Your task to perform on an android device: change the clock display to show seconds Image 0: 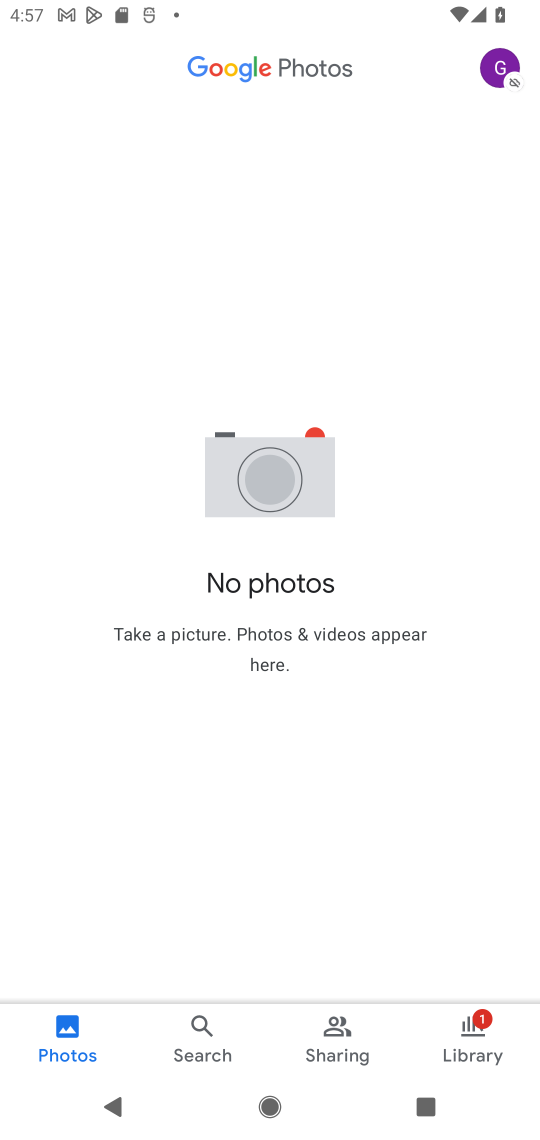
Step 0: press home button
Your task to perform on an android device: change the clock display to show seconds Image 1: 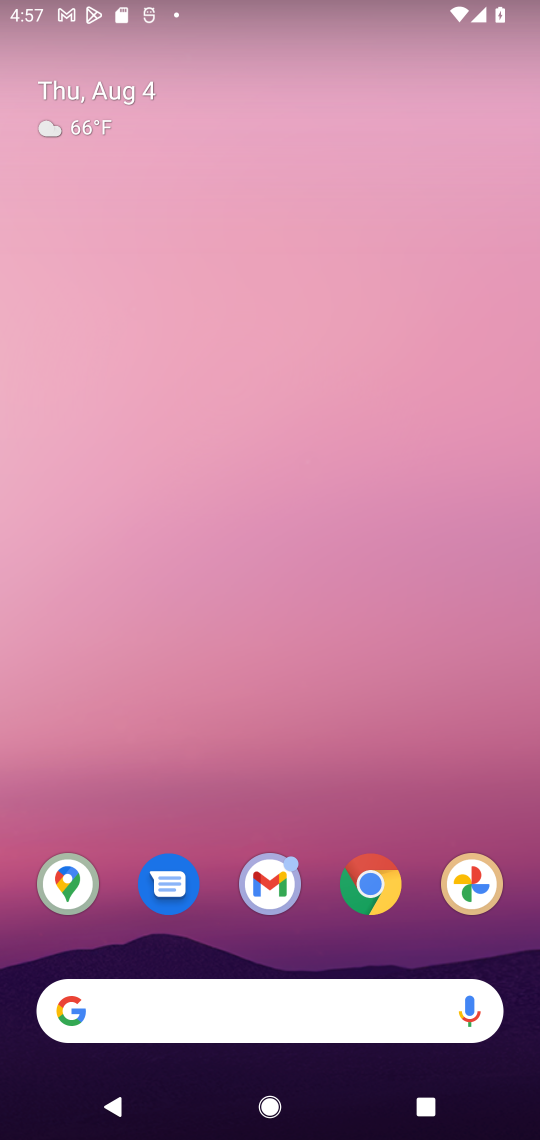
Step 1: drag from (211, 925) to (234, 260)
Your task to perform on an android device: change the clock display to show seconds Image 2: 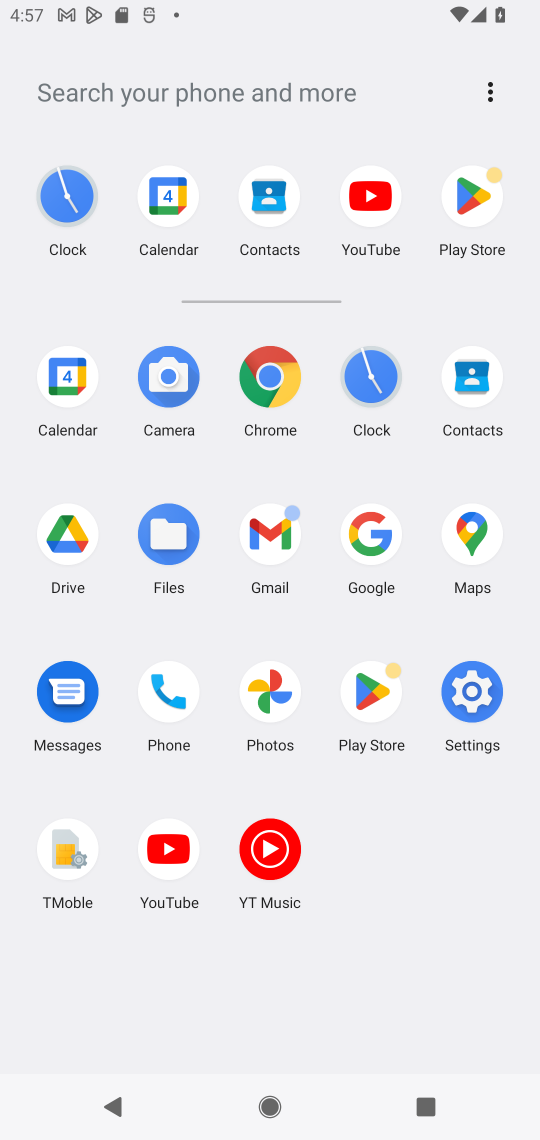
Step 2: click (383, 364)
Your task to perform on an android device: change the clock display to show seconds Image 3: 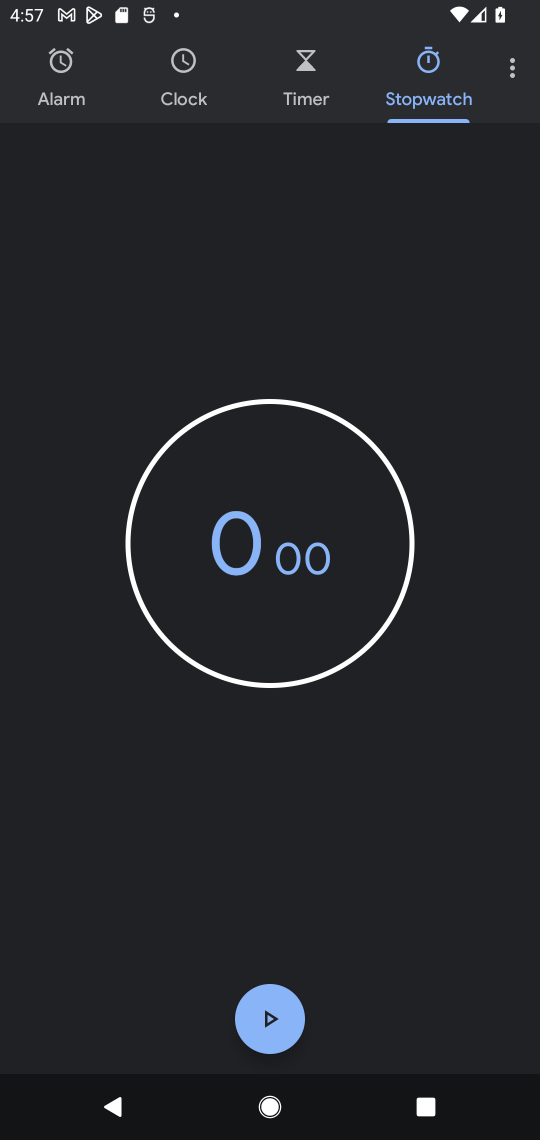
Step 3: click (509, 76)
Your task to perform on an android device: change the clock display to show seconds Image 4: 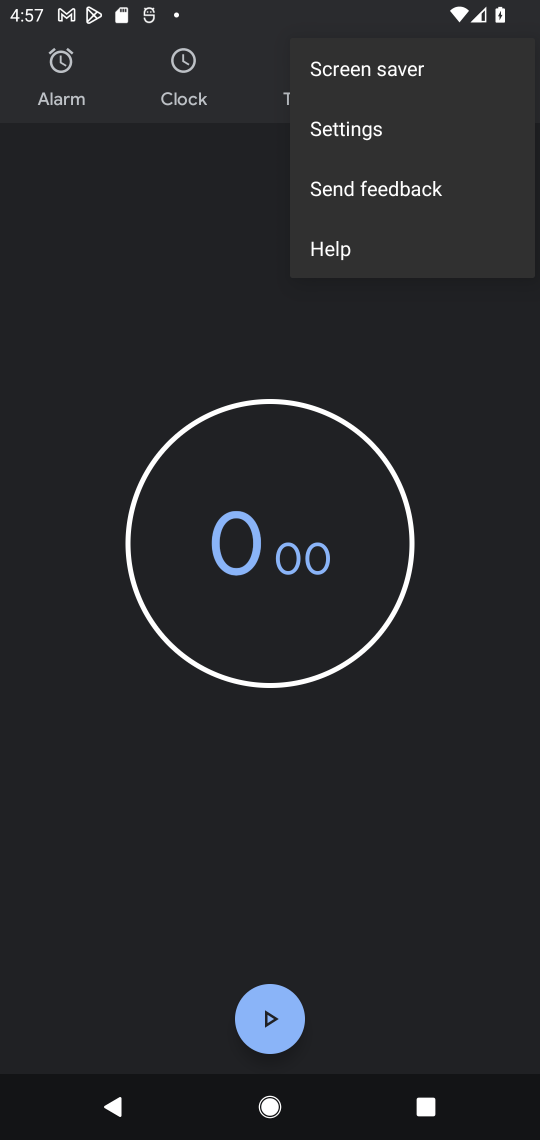
Step 4: click (401, 113)
Your task to perform on an android device: change the clock display to show seconds Image 5: 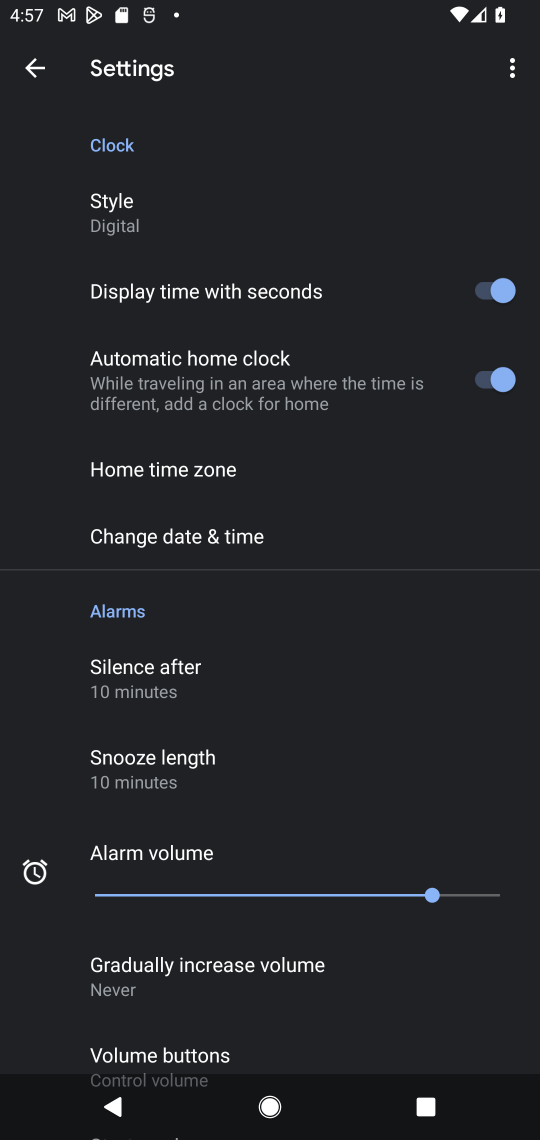
Step 5: task complete